Your task to perform on an android device: Open the calendar and show me this week's events? Image 0: 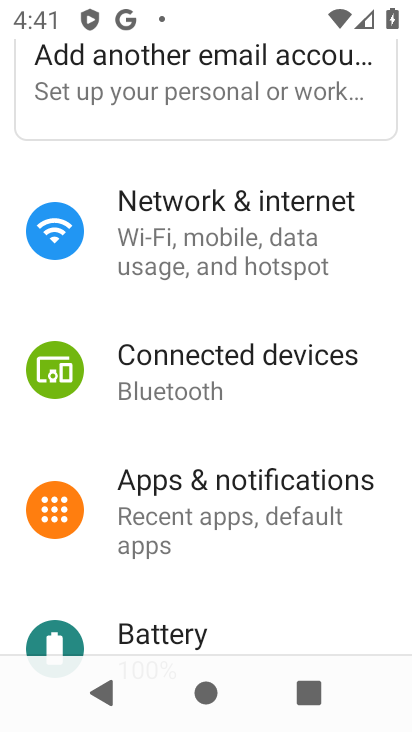
Step 0: press home button
Your task to perform on an android device: Open the calendar and show me this week's events? Image 1: 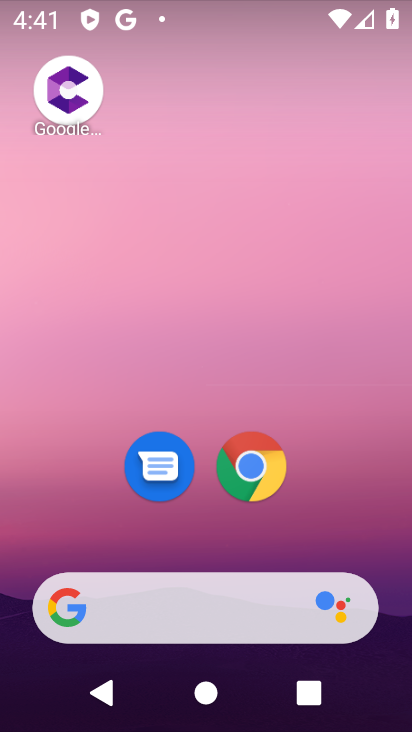
Step 1: drag from (357, 562) to (290, 121)
Your task to perform on an android device: Open the calendar and show me this week's events? Image 2: 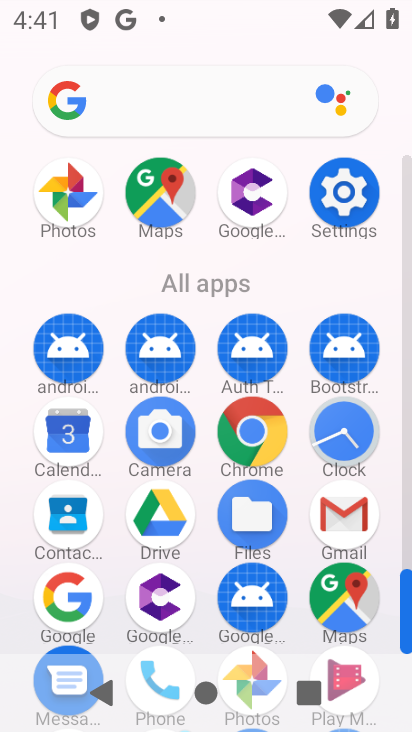
Step 2: click (78, 445)
Your task to perform on an android device: Open the calendar and show me this week's events? Image 3: 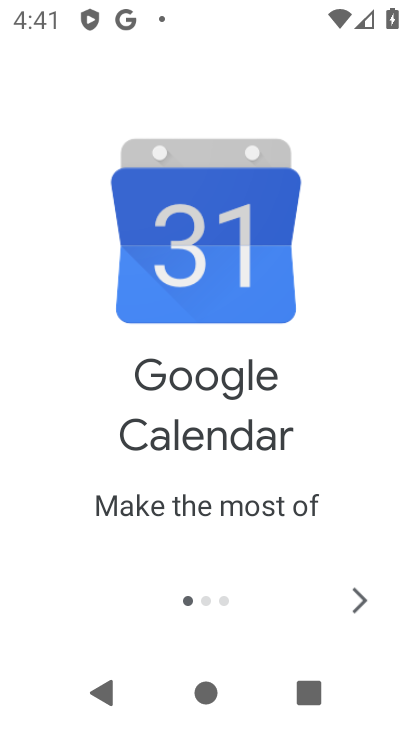
Step 3: click (347, 603)
Your task to perform on an android device: Open the calendar and show me this week's events? Image 4: 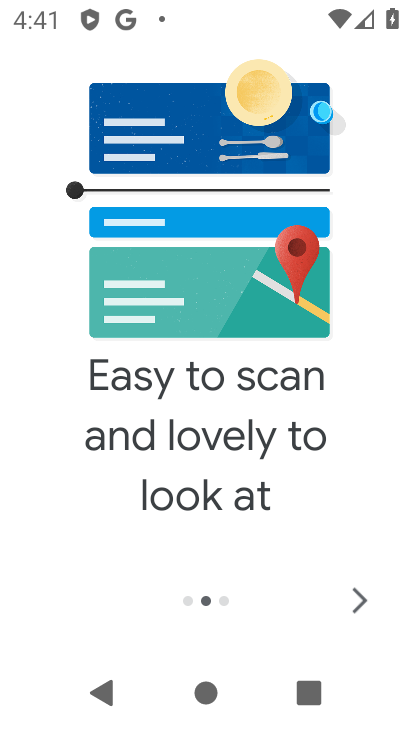
Step 4: click (347, 603)
Your task to perform on an android device: Open the calendar and show me this week's events? Image 5: 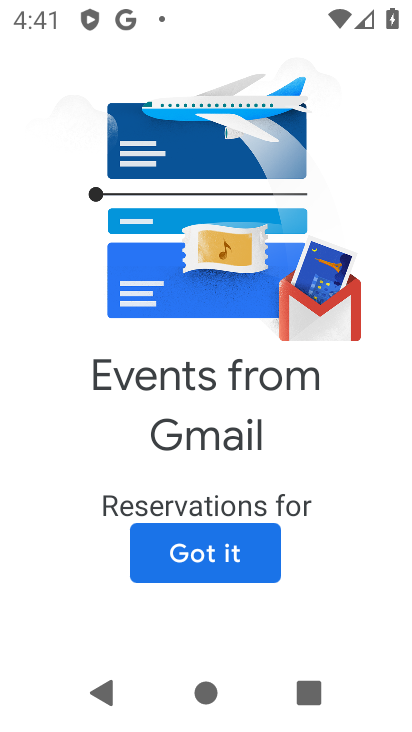
Step 5: click (223, 575)
Your task to perform on an android device: Open the calendar and show me this week's events? Image 6: 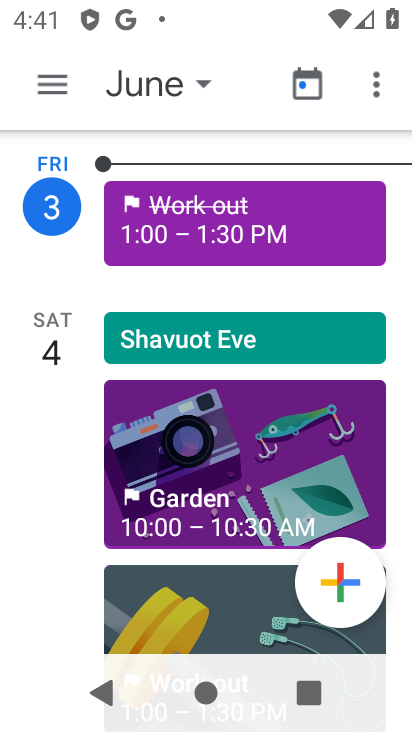
Step 6: click (55, 89)
Your task to perform on an android device: Open the calendar and show me this week's events? Image 7: 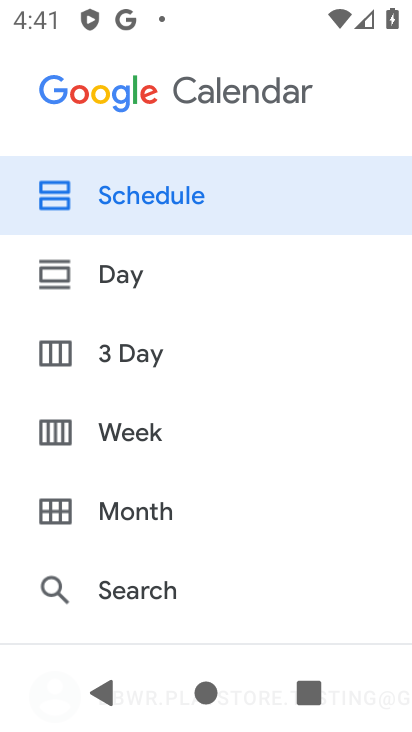
Step 7: drag from (159, 601) to (103, 214)
Your task to perform on an android device: Open the calendar and show me this week's events? Image 8: 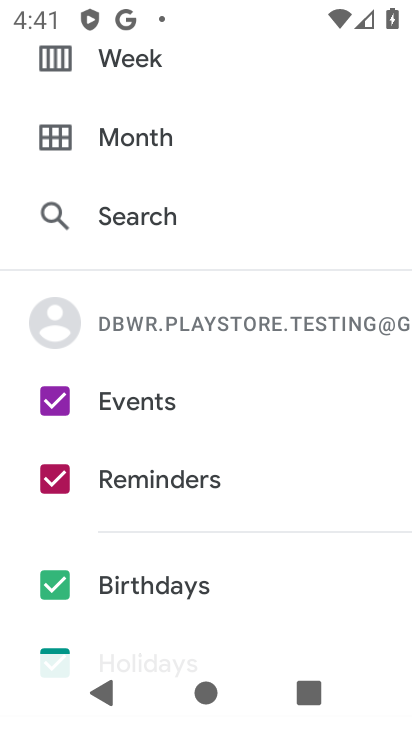
Step 8: drag from (156, 532) to (123, 306)
Your task to perform on an android device: Open the calendar and show me this week's events? Image 9: 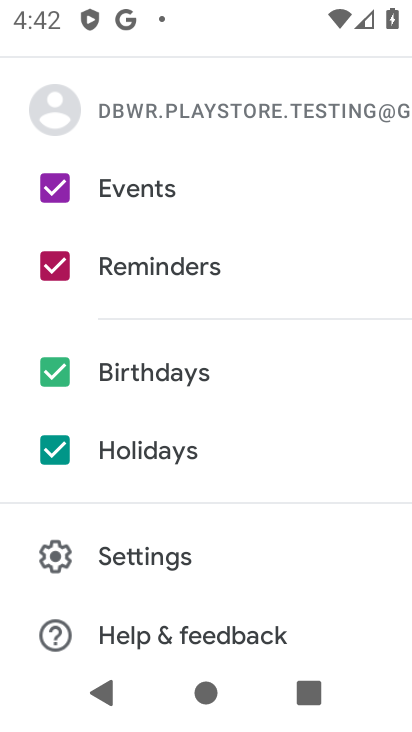
Step 9: click (52, 437)
Your task to perform on an android device: Open the calendar and show me this week's events? Image 10: 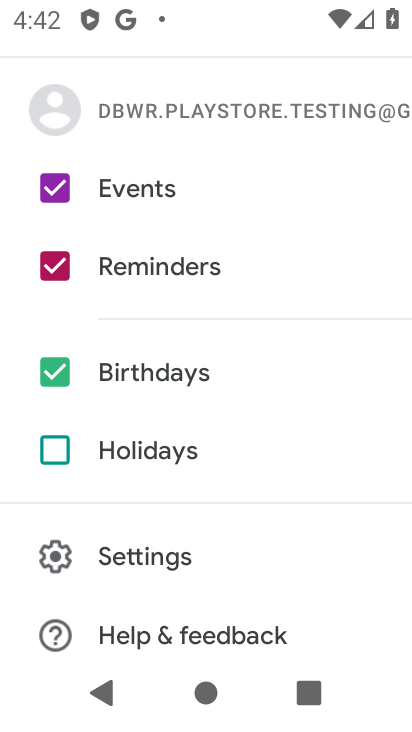
Step 10: click (50, 366)
Your task to perform on an android device: Open the calendar and show me this week's events? Image 11: 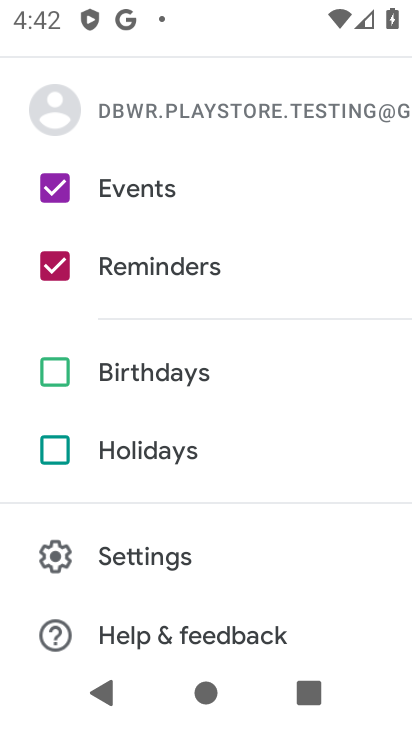
Step 11: click (52, 275)
Your task to perform on an android device: Open the calendar and show me this week's events? Image 12: 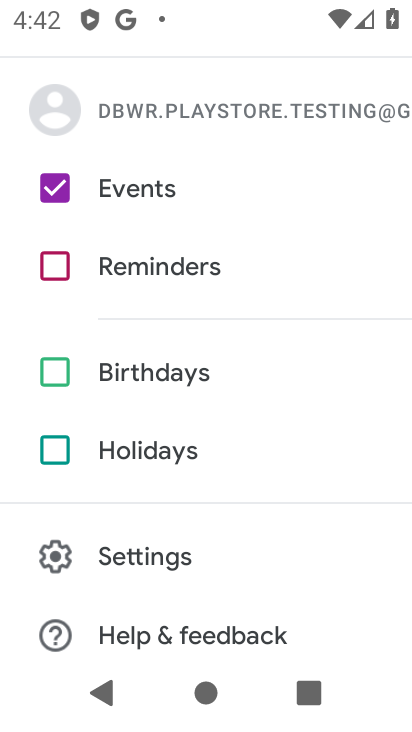
Step 12: drag from (192, 135) to (169, 619)
Your task to perform on an android device: Open the calendar and show me this week's events? Image 13: 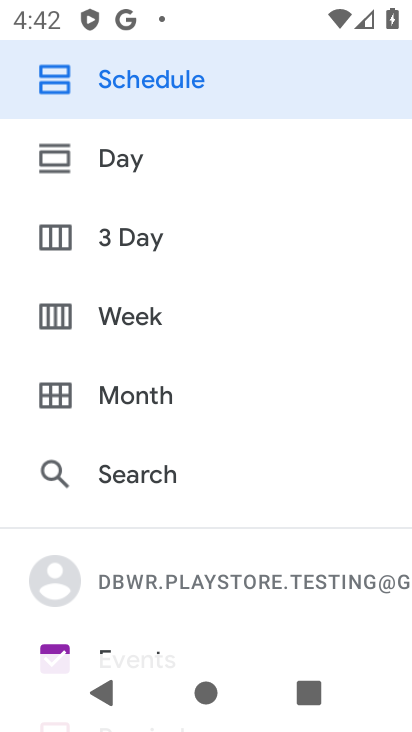
Step 13: click (138, 309)
Your task to perform on an android device: Open the calendar and show me this week's events? Image 14: 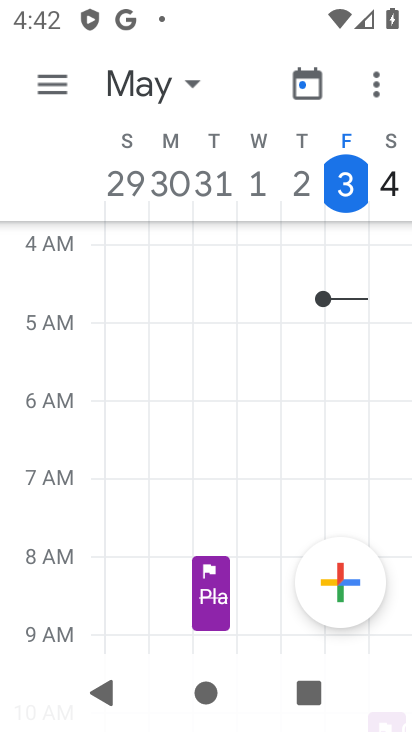
Step 14: task complete